Your task to perform on an android device: change the clock display to analog Image 0: 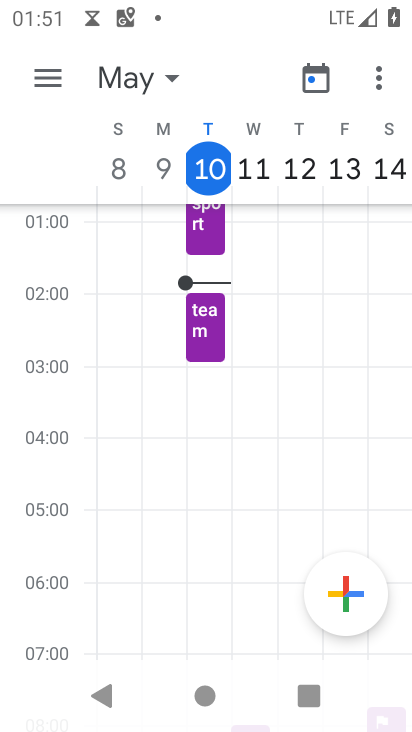
Step 0: press home button
Your task to perform on an android device: change the clock display to analog Image 1: 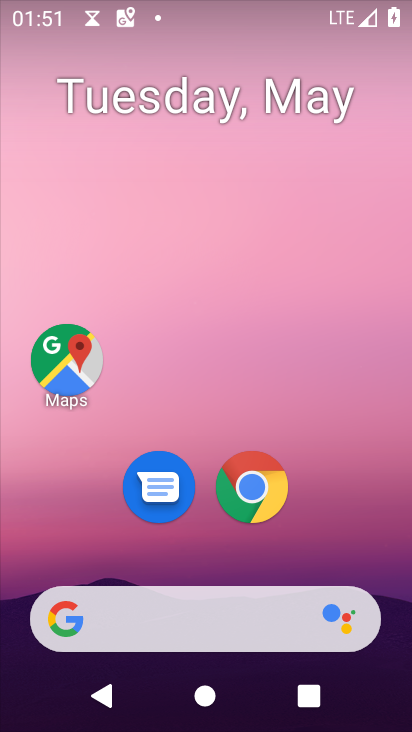
Step 1: drag from (297, 524) to (387, 4)
Your task to perform on an android device: change the clock display to analog Image 2: 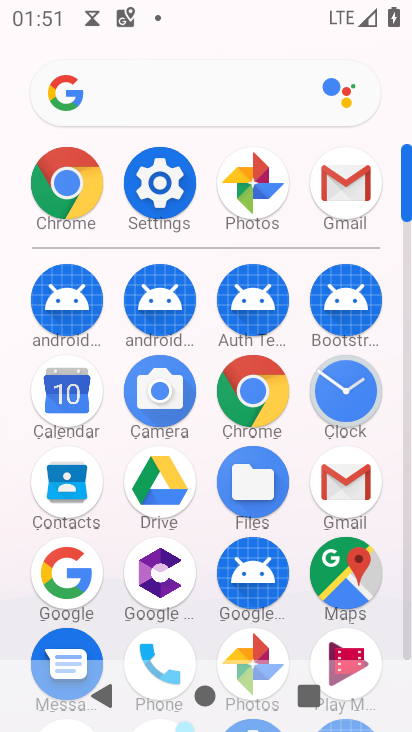
Step 2: click (357, 380)
Your task to perform on an android device: change the clock display to analog Image 3: 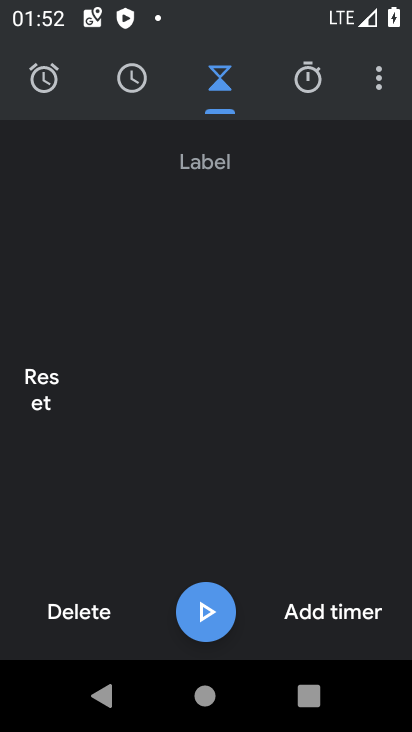
Step 3: click (376, 83)
Your task to perform on an android device: change the clock display to analog Image 4: 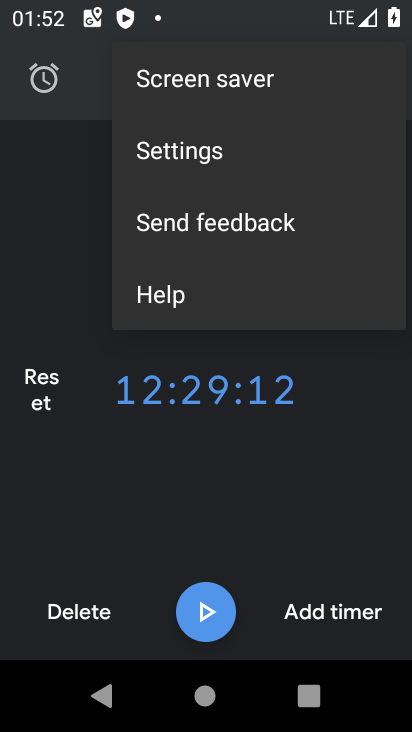
Step 4: click (226, 146)
Your task to perform on an android device: change the clock display to analog Image 5: 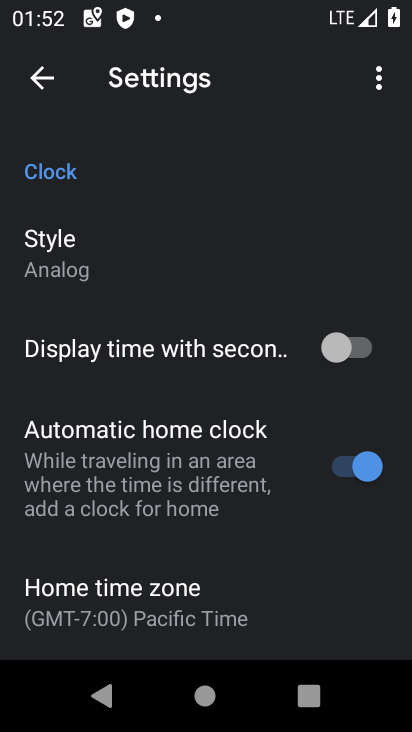
Step 5: click (151, 254)
Your task to perform on an android device: change the clock display to analog Image 6: 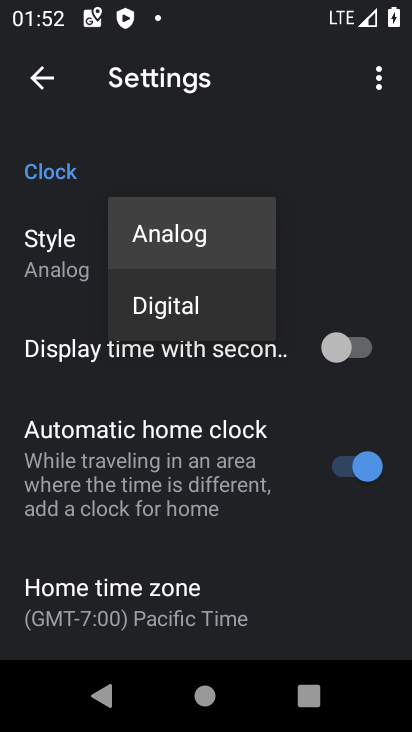
Step 6: task complete